Your task to perform on an android device: open chrome and create a bookmark for the current page Image 0: 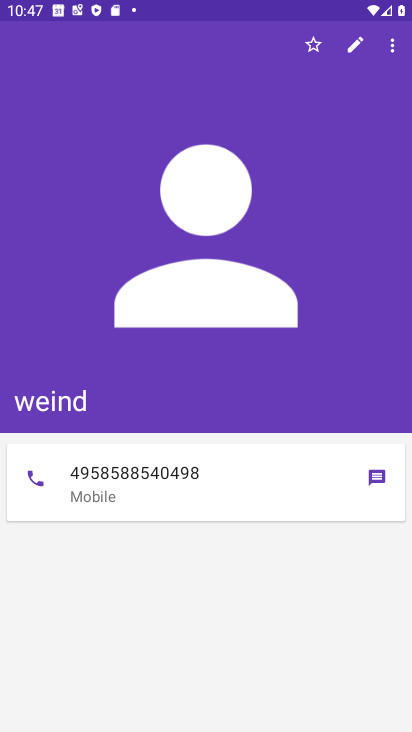
Step 0: press home button
Your task to perform on an android device: open chrome and create a bookmark for the current page Image 1: 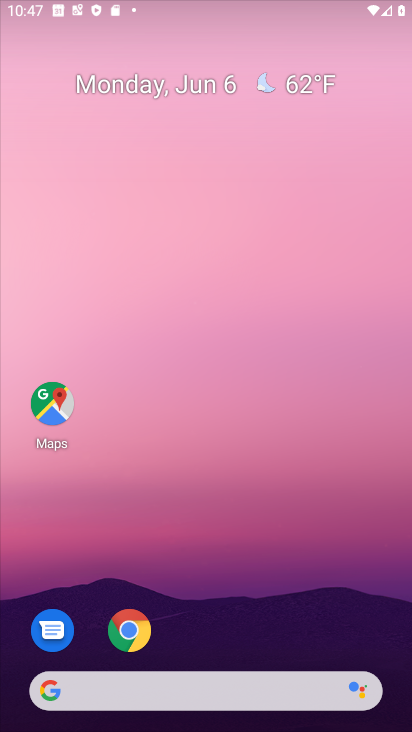
Step 1: drag from (324, 619) to (336, 74)
Your task to perform on an android device: open chrome and create a bookmark for the current page Image 2: 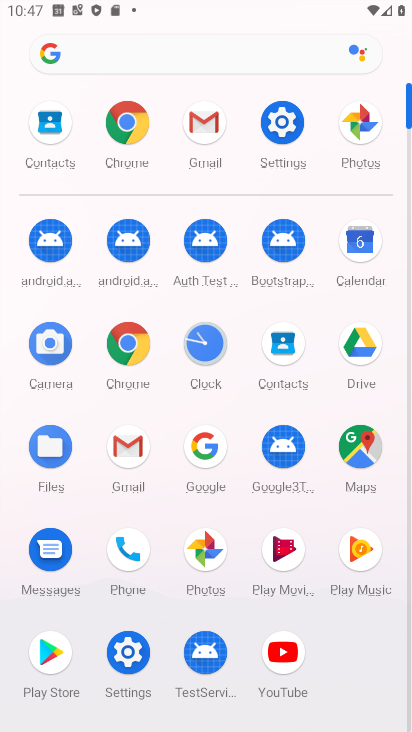
Step 2: click (137, 352)
Your task to perform on an android device: open chrome and create a bookmark for the current page Image 3: 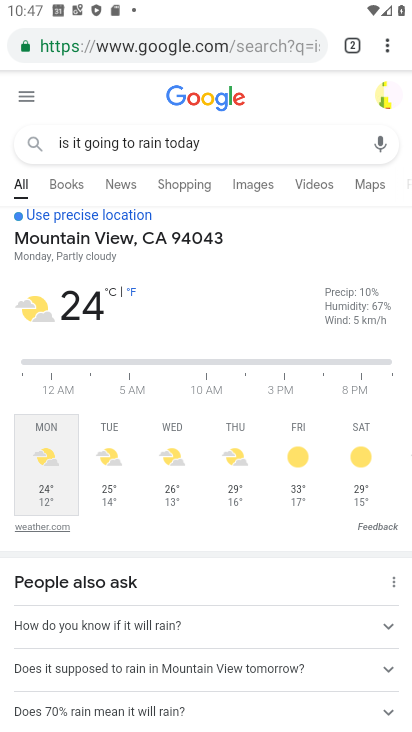
Step 3: task complete